Your task to perform on an android device: Open sound settings Image 0: 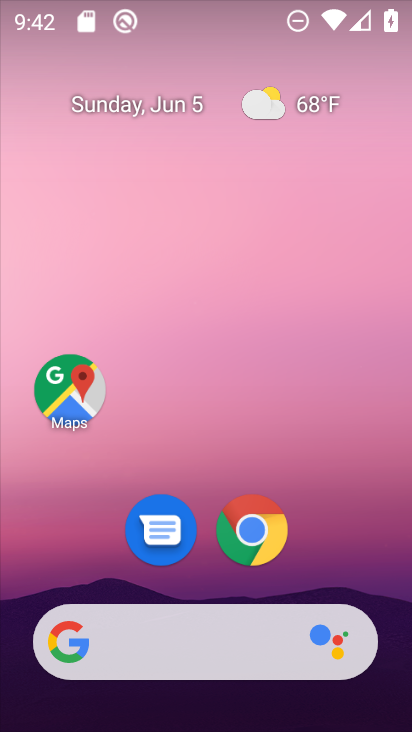
Step 0: drag from (397, 617) to (300, 77)
Your task to perform on an android device: Open sound settings Image 1: 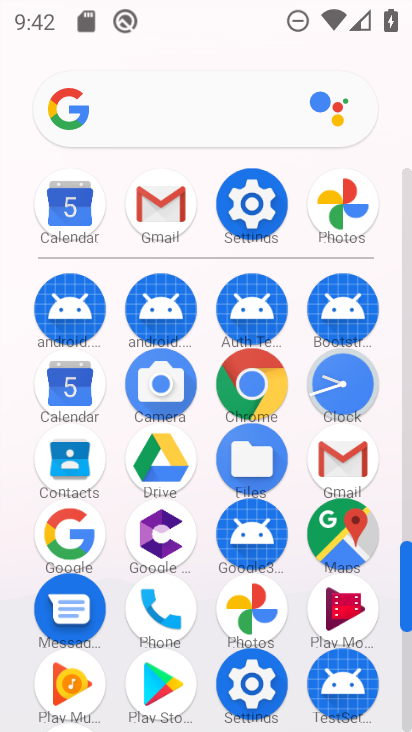
Step 1: click (403, 697)
Your task to perform on an android device: Open sound settings Image 2: 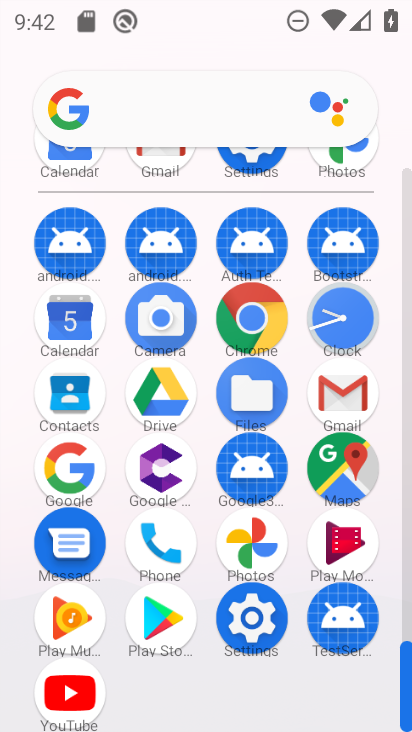
Step 2: click (250, 621)
Your task to perform on an android device: Open sound settings Image 3: 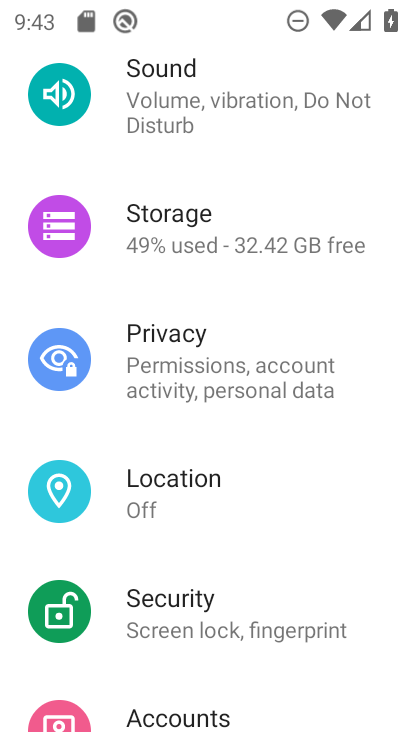
Step 3: drag from (337, 248) to (301, 502)
Your task to perform on an android device: Open sound settings Image 4: 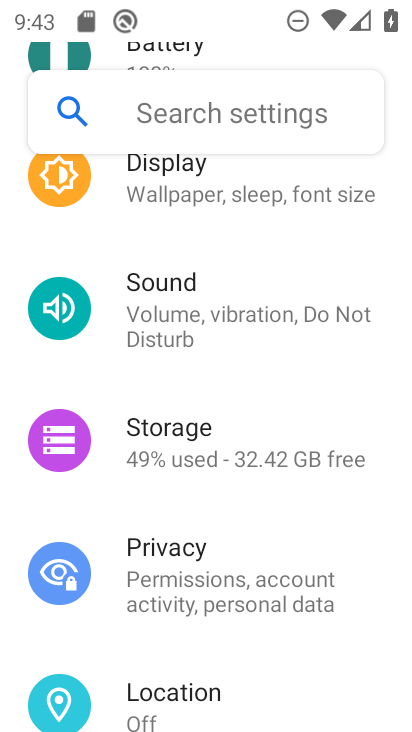
Step 4: click (157, 302)
Your task to perform on an android device: Open sound settings Image 5: 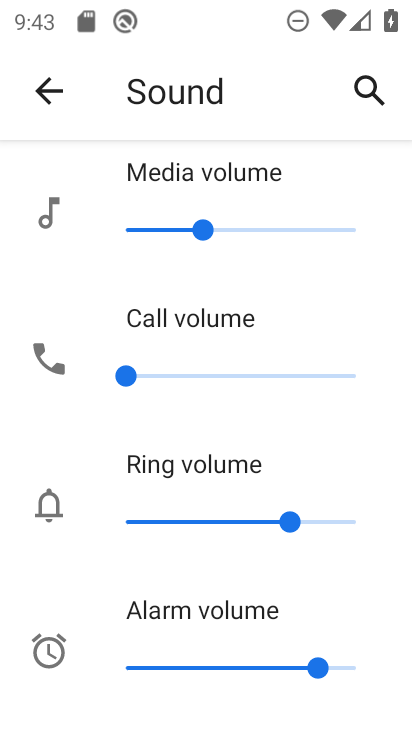
Step 5: drag from (352, 667) to (324, 192)
Your task to perform on an android device: Open sound settings Image 6: 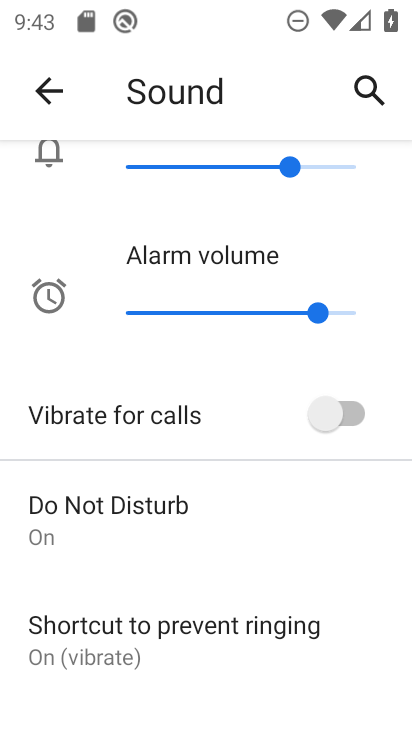
Step 6: drag from (334, 633) to (312, 205)
Your task to perform on an android device: Open sound settings Image 7: 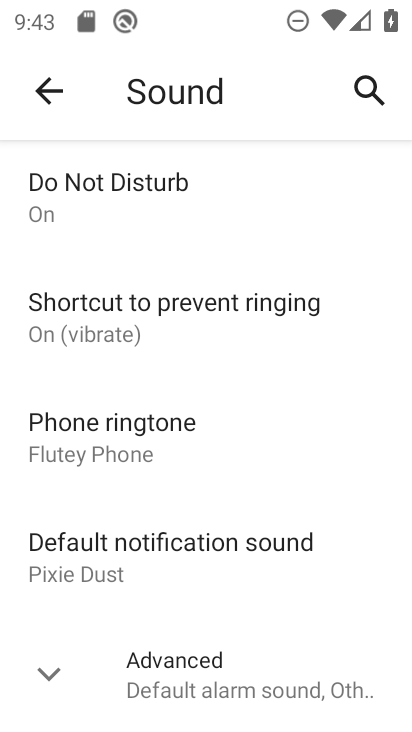
Step 7: click (48, 674)
Your task to perform on an android device: Open sound settings Image 8: 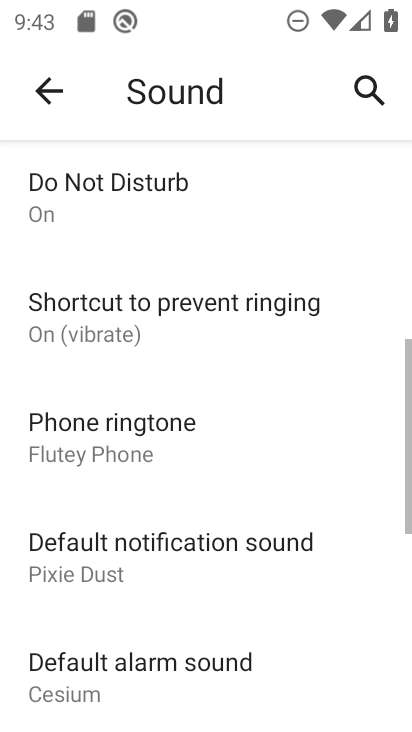
Step 8: task complete